Your task to perform on an android device: turn on airplane mode Image 0: 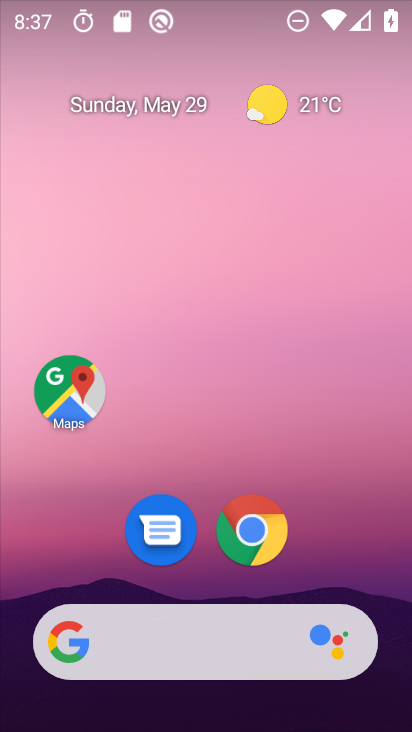
Step 0: drag from (251, 675) to (249, 146)
Your task to perform on an android device: turn on airplane mode Image 1: 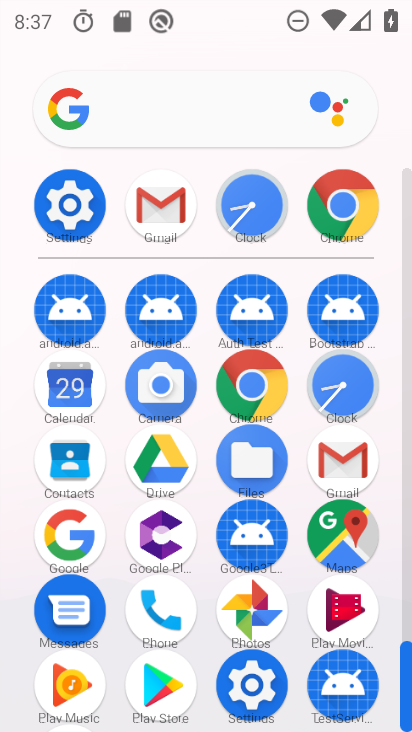
Step 1: click (63, 216)
Your task to perform on an android device: turn on airplane mode Image 2: 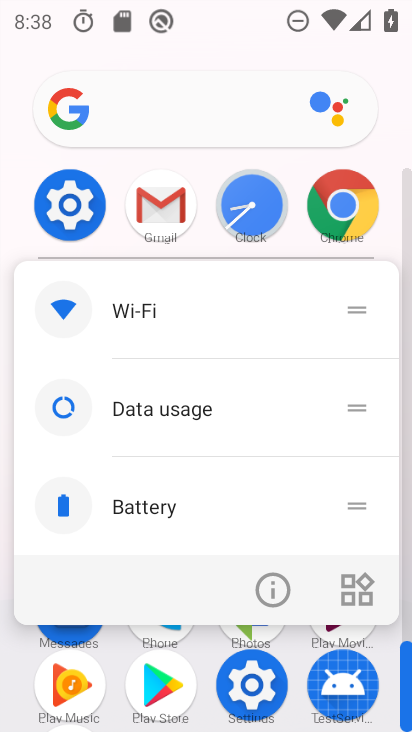
Step 2: click (91, 219)
Your task to perform on an android device: turn on airplane mode Image 3: 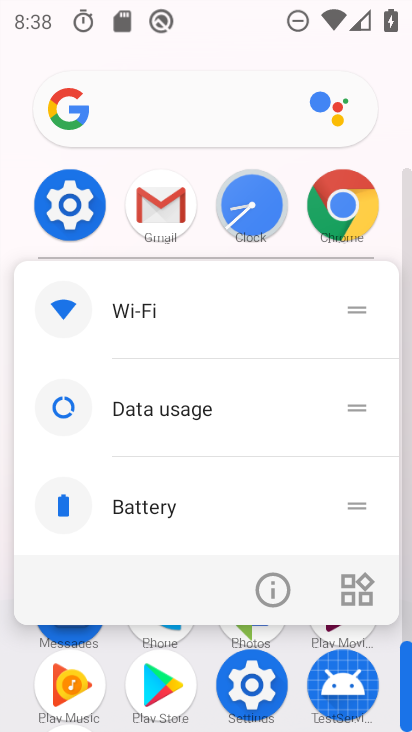
Step 3: click (54, 213)
Your task to perform on an android device: turn on airplane mode Image 4: 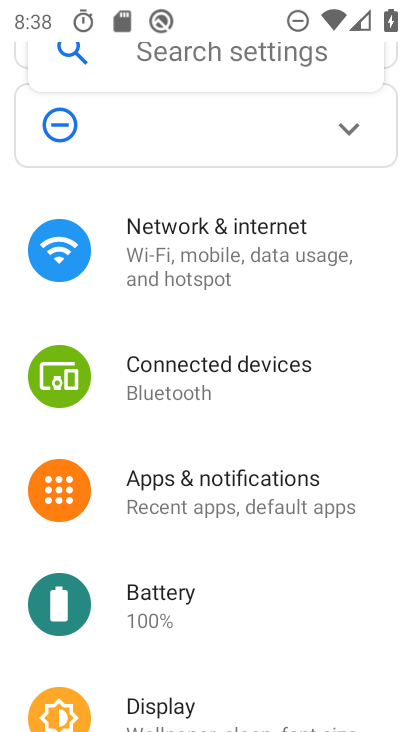
Step 4: click (256, 249)
Your task to perform on an android device: turn on airplane mode Image 5: 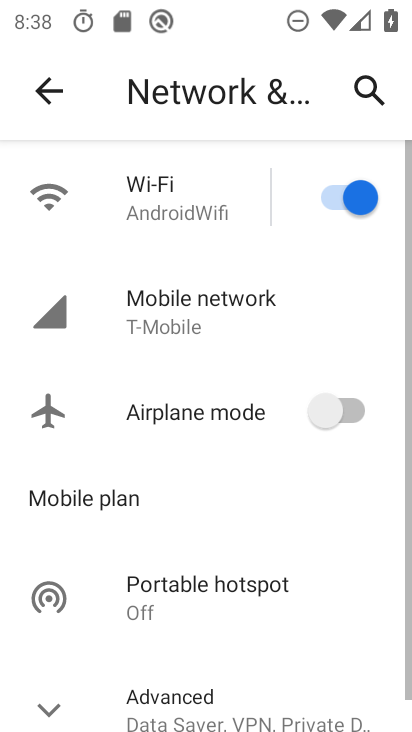
Step 5: click (346, 453)
Your task to perform on an android device: turn on airplane mode Image 6: 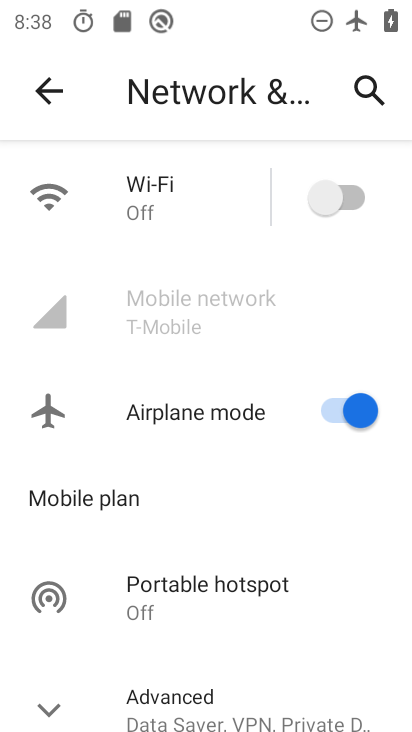
Step 6: task complete